Your task to perform on an android device: Play the last video I watched on Youtube Image 0: 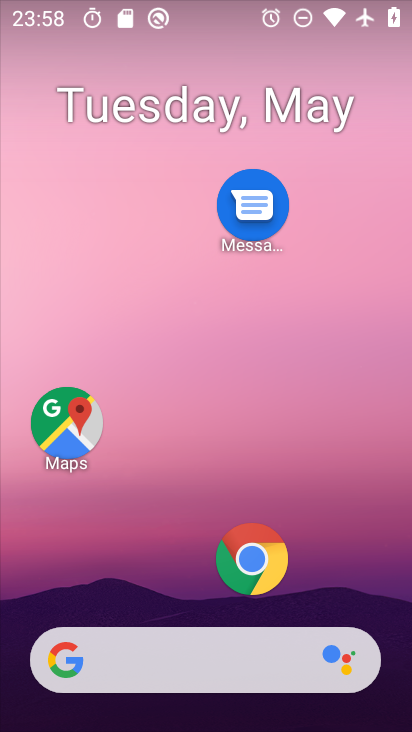
Step 0: drag from (175, 587) to (184, 129)
Your task to perform on an android device: Play the last video I watched on Youtube Image 1: 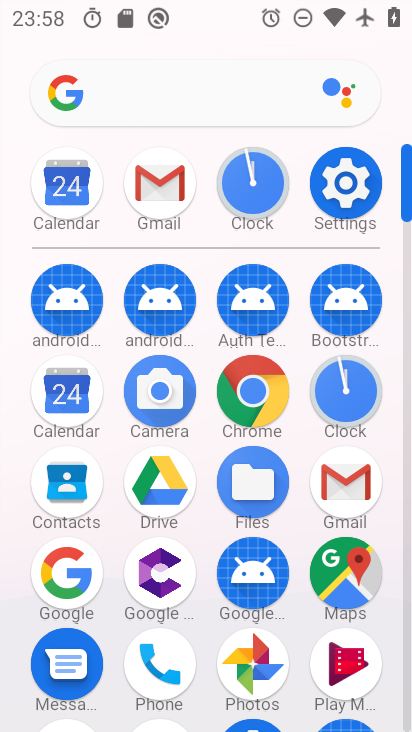
Step 1: drag from (194, 629) to (230, 235)
Your task to perform on an android device: Play the last video I watched on Youtube Image 2: 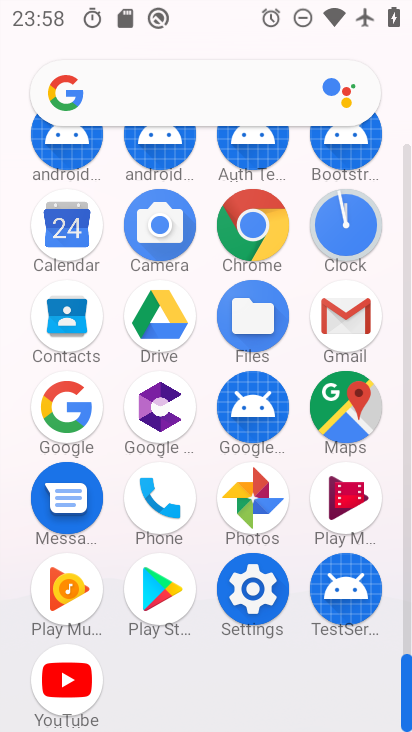
Step 2: click (80, 652)
Your task to perform on an android device: Play the last video I watched on Youtube Image 3: 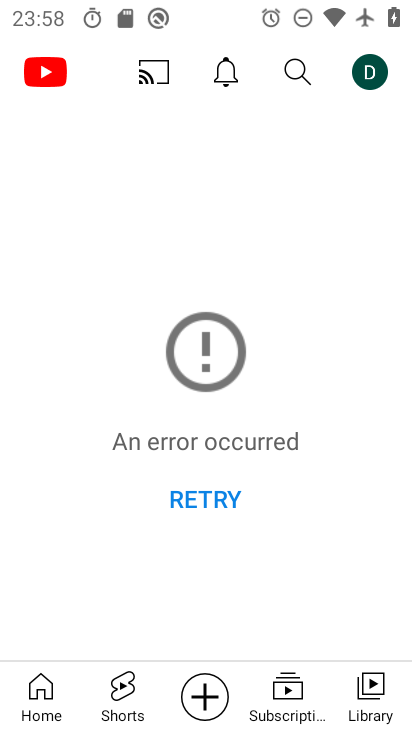
Step 3: click (369, 702)
Your task to perform on an android device: Play the last video I watched on Youtube Image 4: 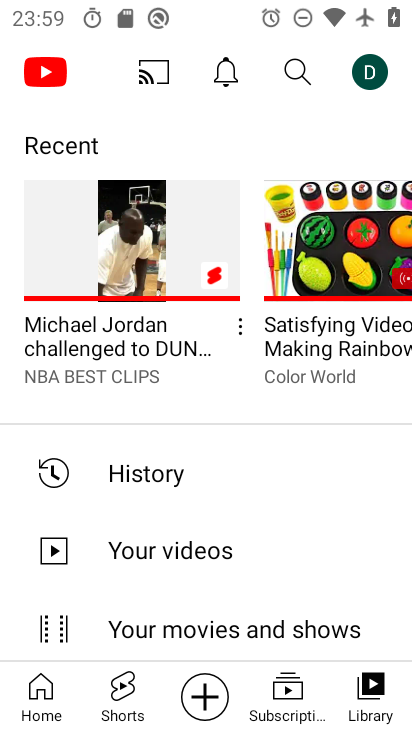
Step 4: click (137, 488)
Your task to perform on an android device: Play the last video I watched on Youtube Image 5: 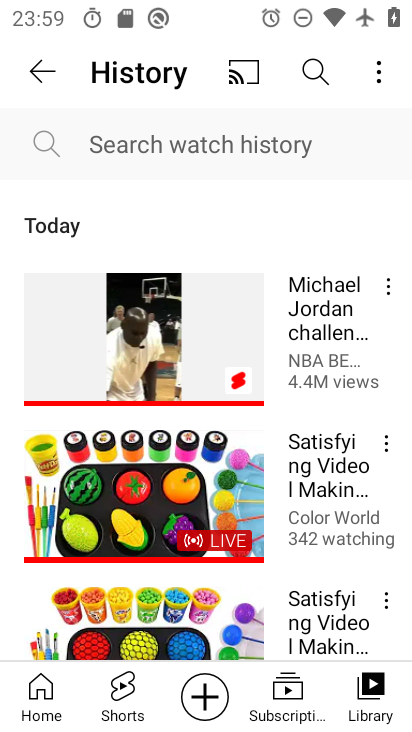
Step 5: click (191, 338)
Your task to perform on an android device: Play the last video I watched on Youtube Image 6: 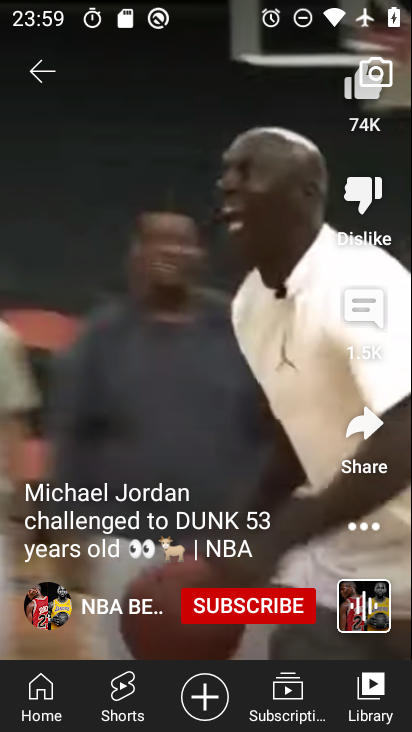
Step 6: task complete